Your task to perform on an android device: Open calendar and show me the first week of next month Image 0: 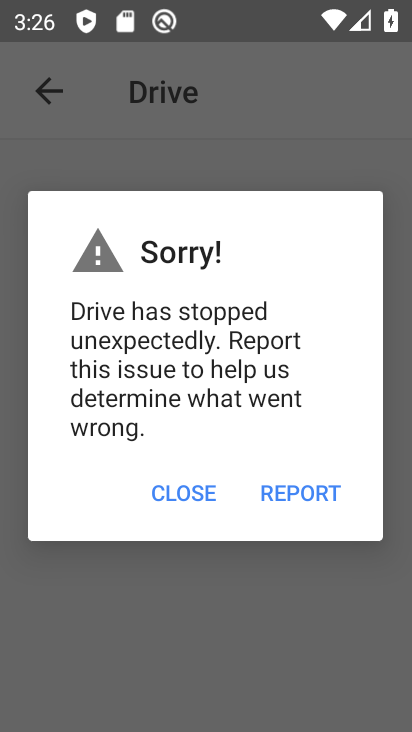
Step 0: press home button
Your task to perform on an android device: Open calendar and show me the first week of next month Image 1: 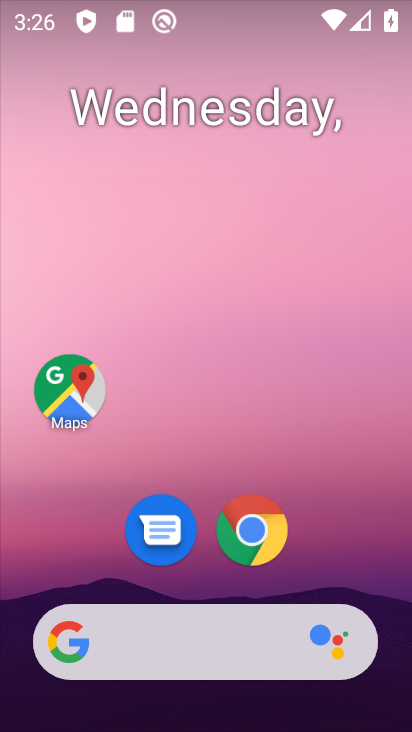
Step 1: drag from (377, 600) to (387, 68)
Your task to perform on an android device: Open calendar and show me the first week of next month Image 2: 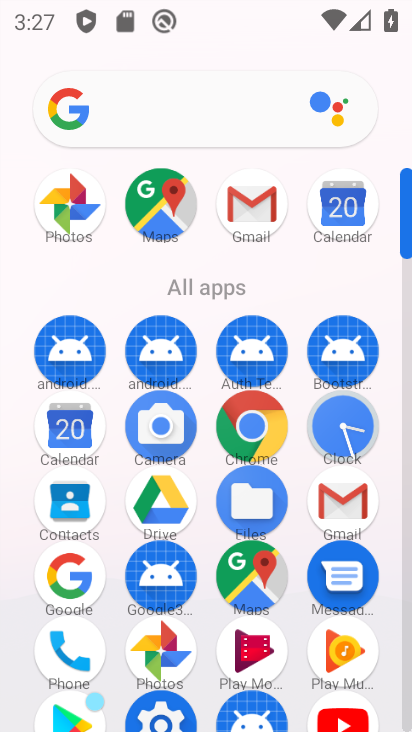
Step 2: click (75, 427)
Your task to perform on an android device: Open calendar and show me the first week of next month Image 3: 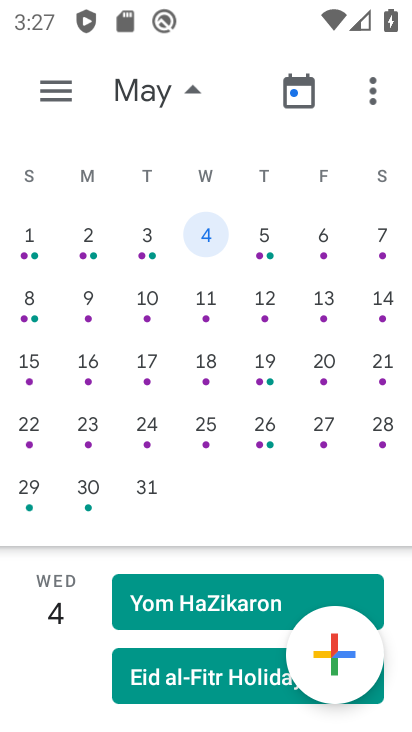
Step 3: click (261, 230)
Your task to perform on an android device: Open calendar and show me the first week of next month Image 4: 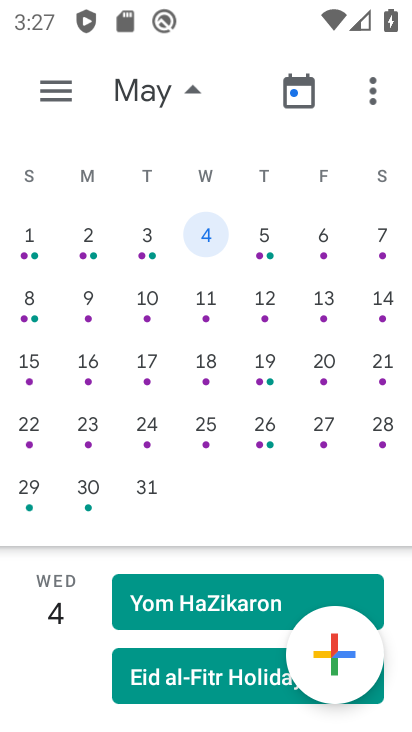
Step 4: click (262, 235)
Your task to perform on an android device: Open calendar and show me the first week of next month Image 5: 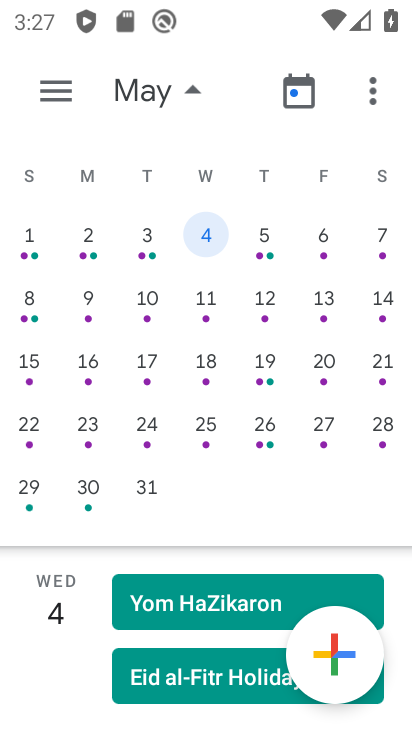
Step 5: click (266, 240)
Your task to perform on an android device: Open calendar and show me the first week of next month Image 6: 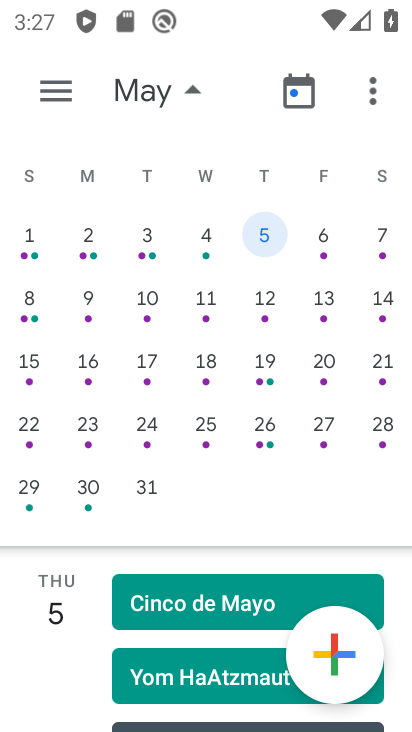
Step 6: task complete